Your task to perform on an android device: Open calendar and show me the fourth week of next month Image 0: 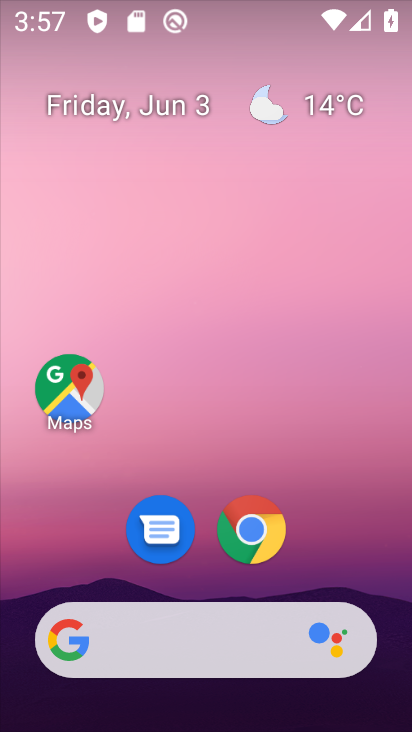
Step 0: drag from (331, 564) to (334, 36)
Your task to perform on an android device: Open calendar and show me the fourth week of next month Image 1: 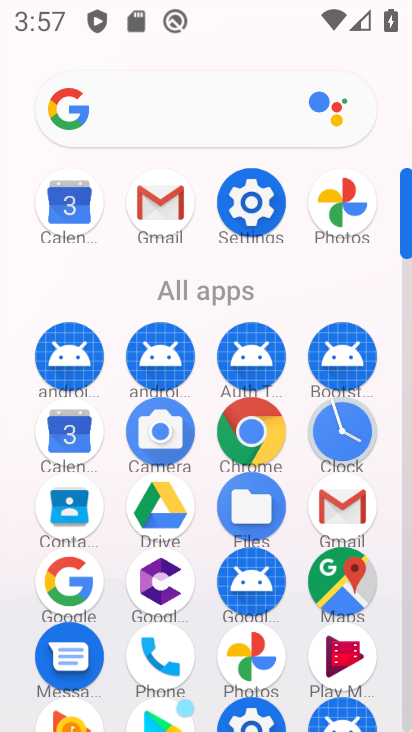
Step 1: click (42, 233)
Your task to perform on an android device: Open calendar and show me the fourth week of next month Image 2: 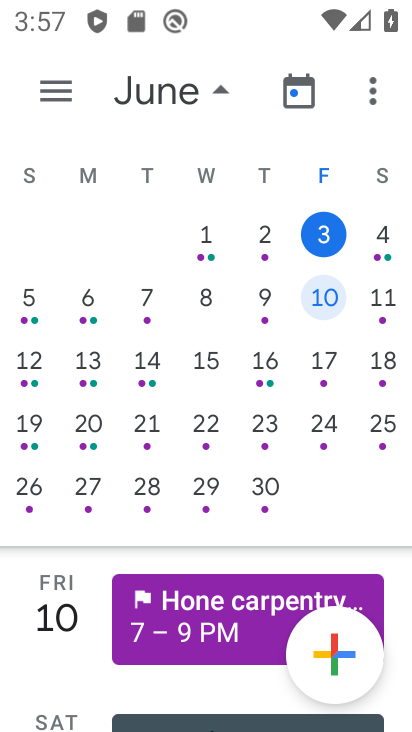
Step 2: drag from (269, 351) to (1, 192)
Your task to perform on an android device: Open calendar and show me the fourth week of next month Image 3: 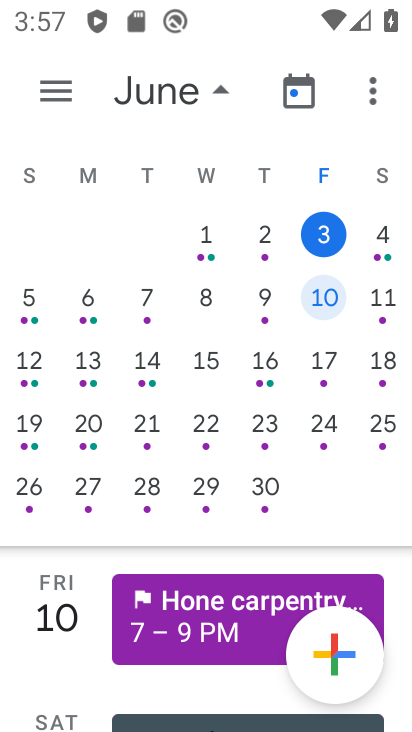
Step 3: click (146, 502)
Your task to perform on an android device: Open calendar and show me the fourth week of next month Image 4: 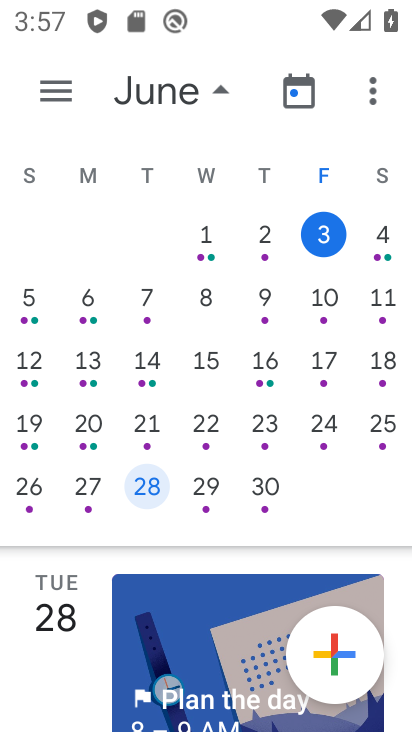
Step 4: task complete